Your task to perform on an android device: stop showing notifications on the lock screen Image 0: 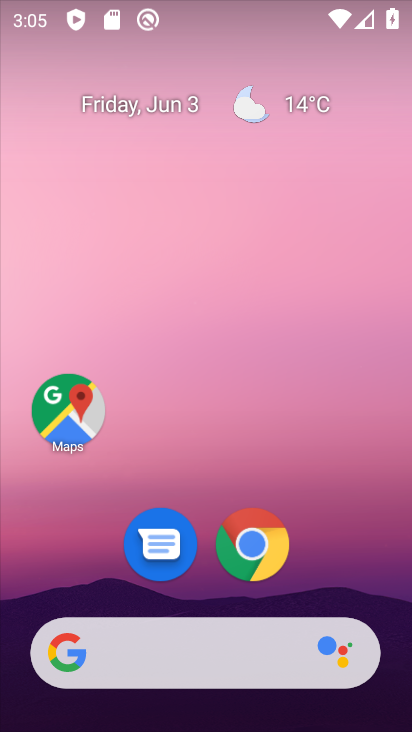
Step 0: drag from (401, 648) to (282, 100)
Your task to perform on an android device: stop showing notifications on the lock screen Image 1: 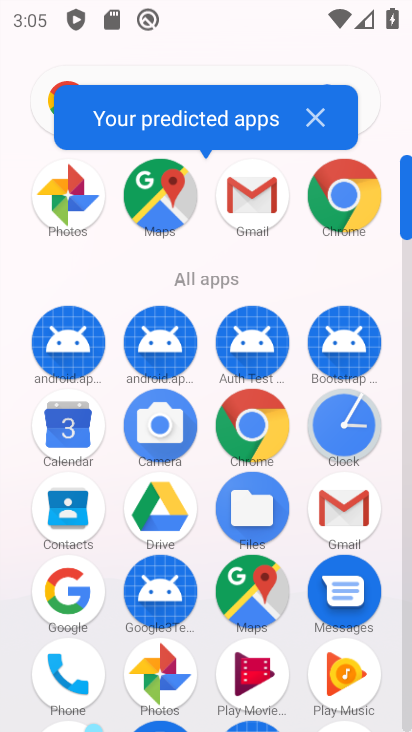
Step 1: click (409, 649)
Your task to perform on an android device: stop showing notifications on the lock screen Image 2: 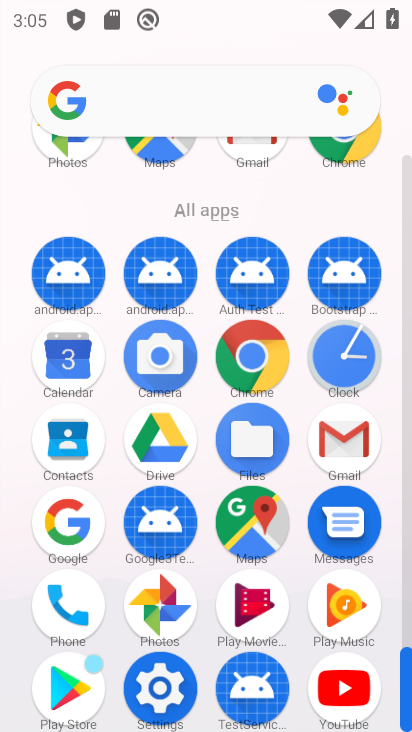
Step 2: click (162, 686)
Your task to perform on an android device: stop showing notifications on the lock screen Image 3: 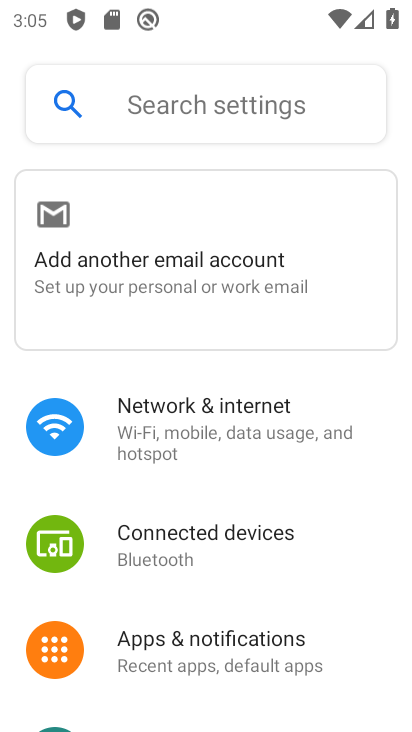
Step 3: drag from (324, 431) to (313, 268)
Your task to perform on an android device: stop showing notifications on the lock screen Image 4: 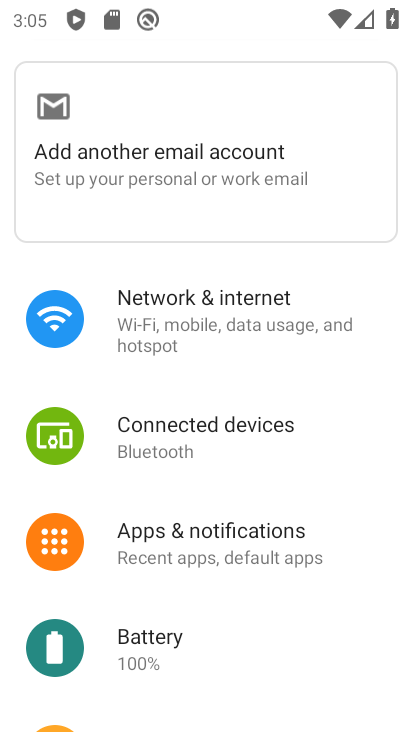
Step 4: click (161, 540)
Your task to perform on an android device: stop showing notifications on the lock screen Image 5: 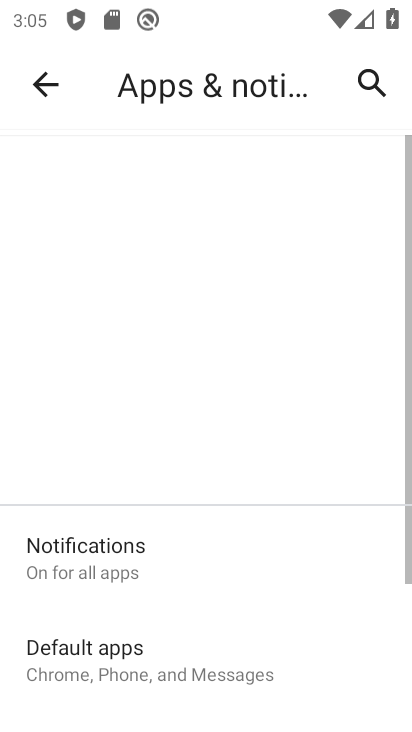
Step 5: drag from (330, 651) to (293, 220)
Your task to perform on an android device: stop showing notifications on the lock screen Image 6: 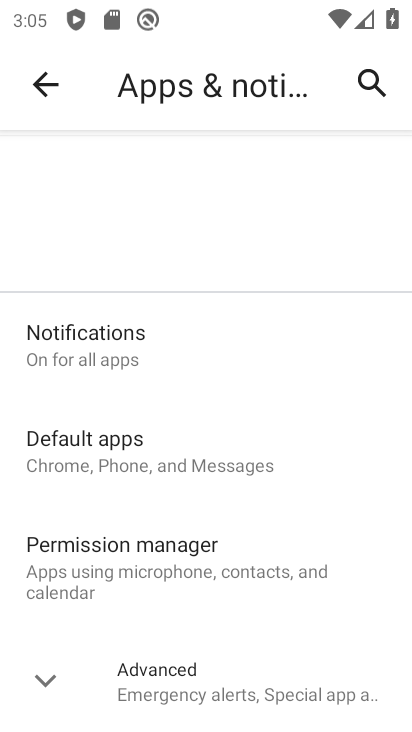
Step 6: click (88, 346)
Your task to perform on an android device: stop showing notifications on the lock screen Image 7: 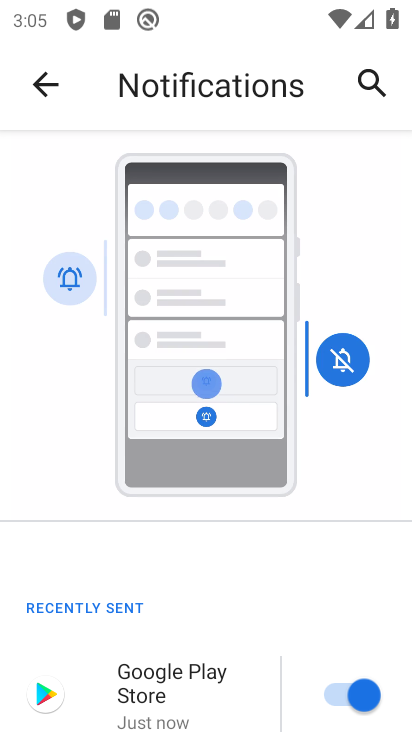
Step 7: drag from (284, 647) to (196, 118)
Your task to perform on an android device: stop showing notifications on the lock screen Image 8: 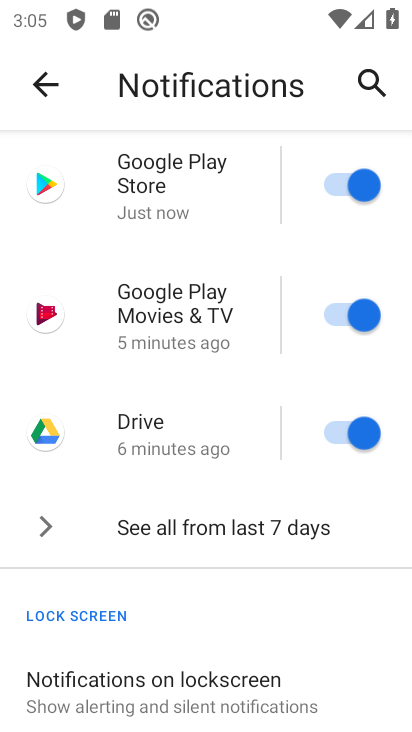
Step 8: drag from (280, 564) to (215, 76)
Your task to perform on an android device: stop showing notifications on the lock screen Image 9: 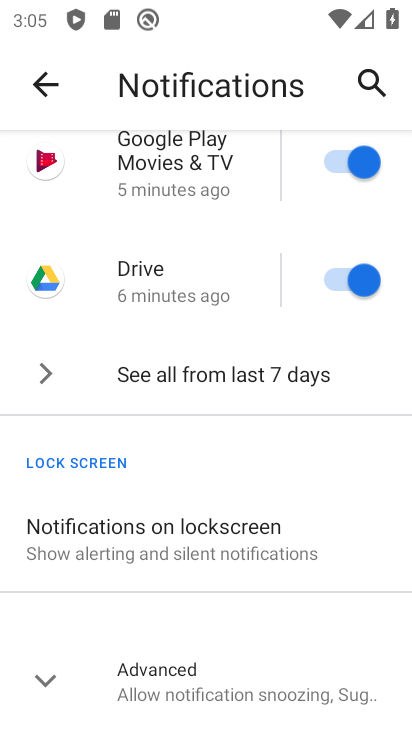
Step 9: click (121, 513)
Your task to perform on an android device: stop showing notifications on the lock screen Image 10: 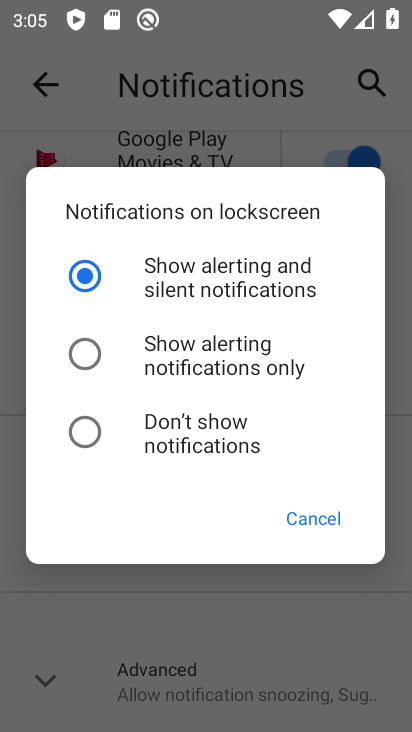
Step 10: click (95, 442)
Your task to perform on an android device: stop showing notifications on the lock screen Image 11: 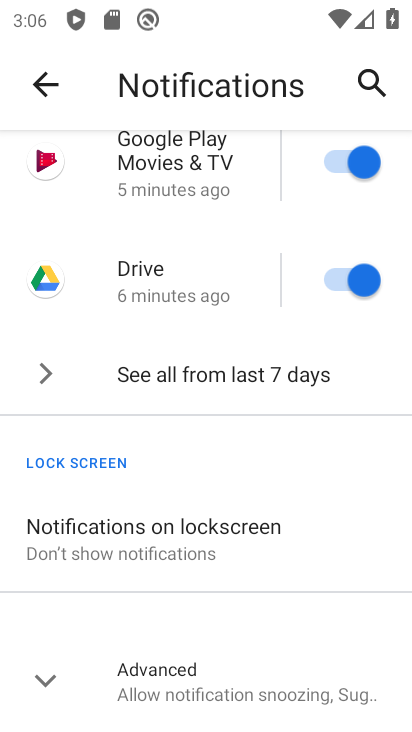
Step 11: task complete